Your task to perform on an android device: change notification settings in the gmail app Image 0: 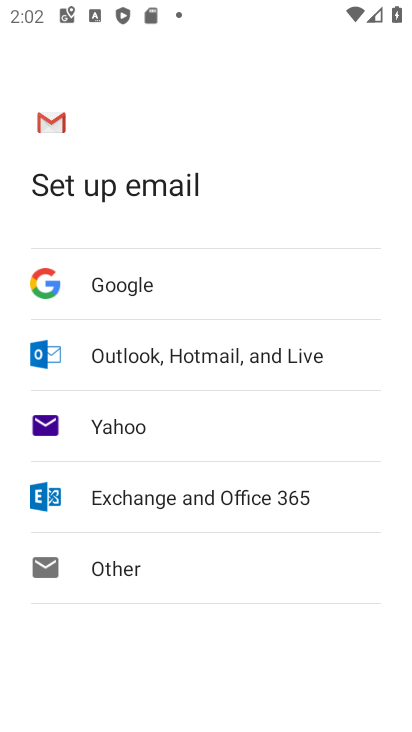
Step 0: press home button
Your task to perform on an android device: change notification settings in the gmail app Image 1: 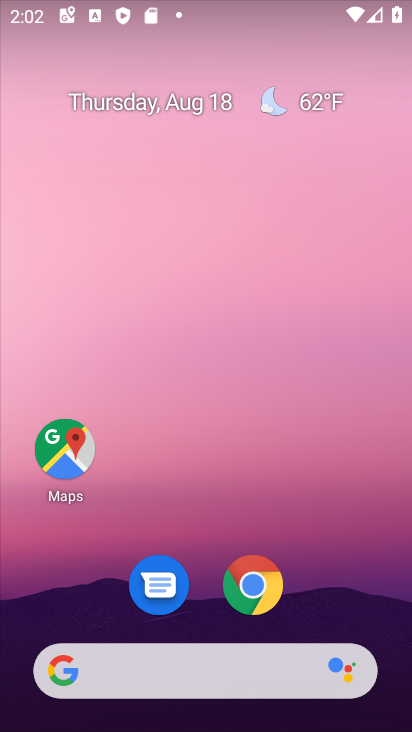
Step 1: drag from (313, 566) to (319, 13)
Your task to perform on an android device: change notification settings in the gmail app Image 2: 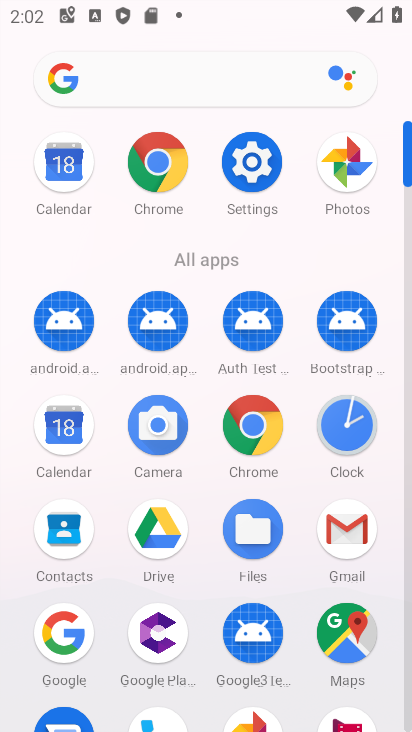
Step 2: click (351, 523)
Your task to perform on an android device: change notification settings in the gmail app Image 3: 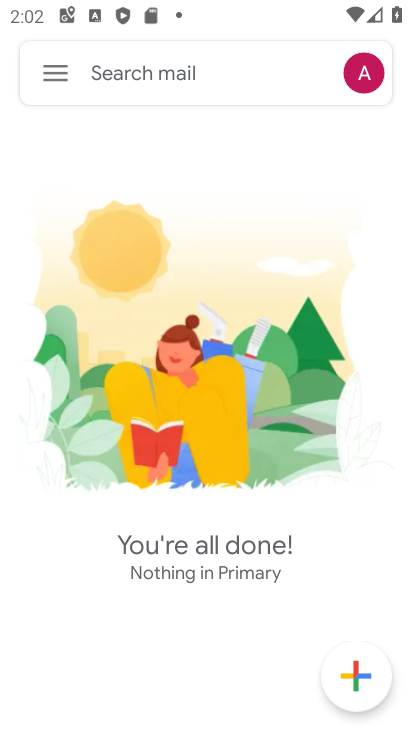
Step 3: click (55, 80)
Your task to perform on an android device: change notification settings in the gmail app Image 4: 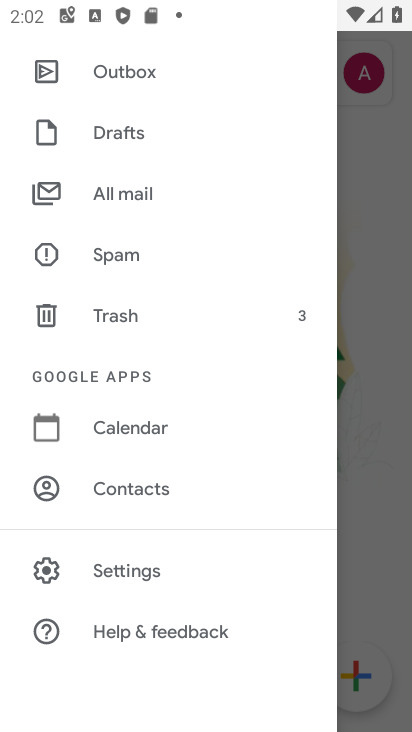
Step 4: click (123, 571)
Your task to perform on an android device: change notification settings in the gmail app Image 5: 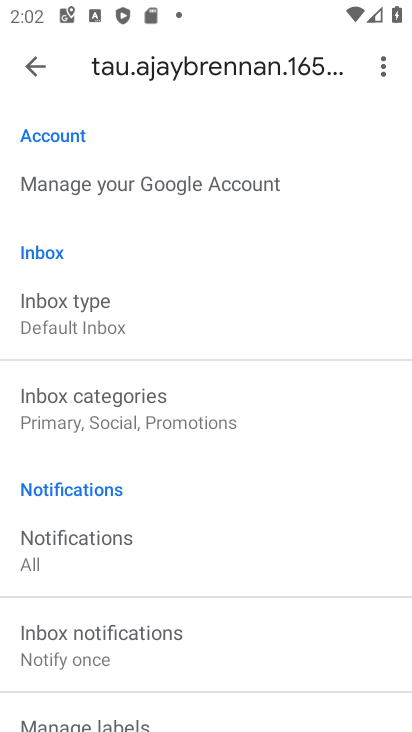
Step 5: drag from (203, 538) to (254, 128)
Your task to perform on an android device: change notification settings in the gmail app Image 6: 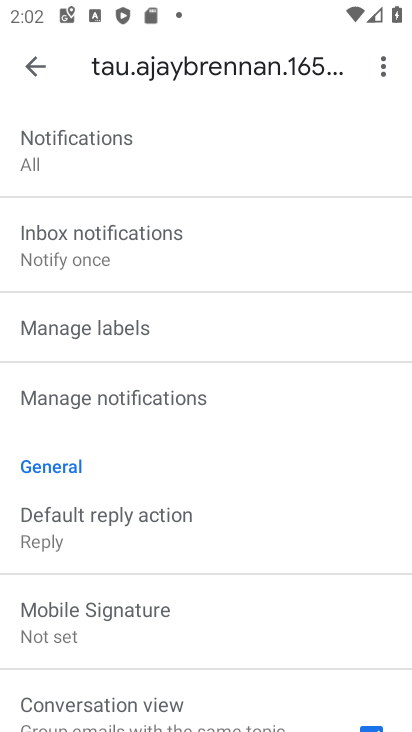
Step 6: click (212, 388)
Your task to perform on an android device: change notification settings in the gmail app Image 7: 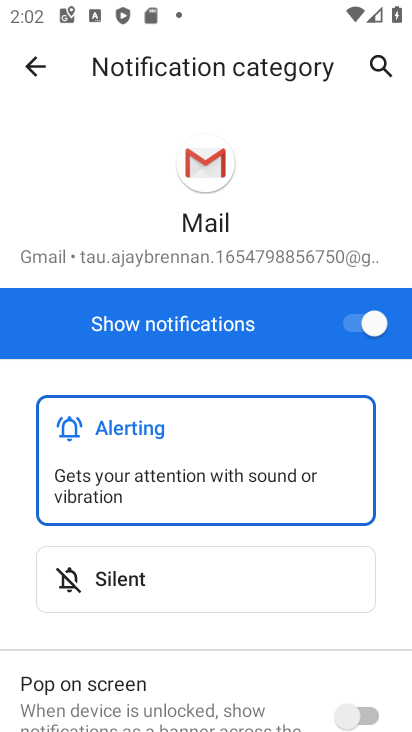
Step 7: click (357, 317)
Your task to perform on an android device: change notification settings in the gmail app Image 8: 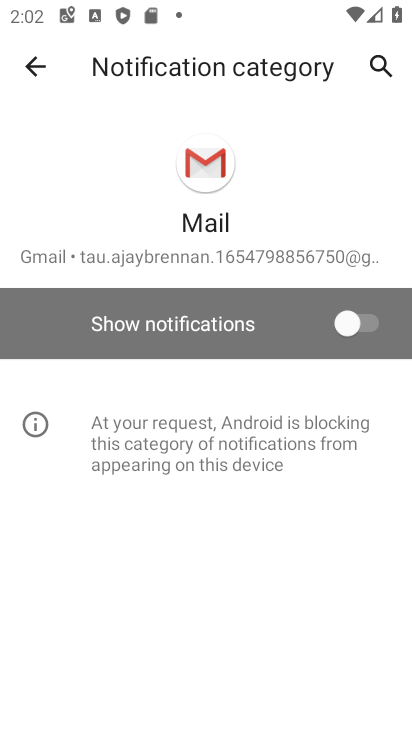
Step 8: task complete